Your task to perform on an android device: Go to display settings Image 0: 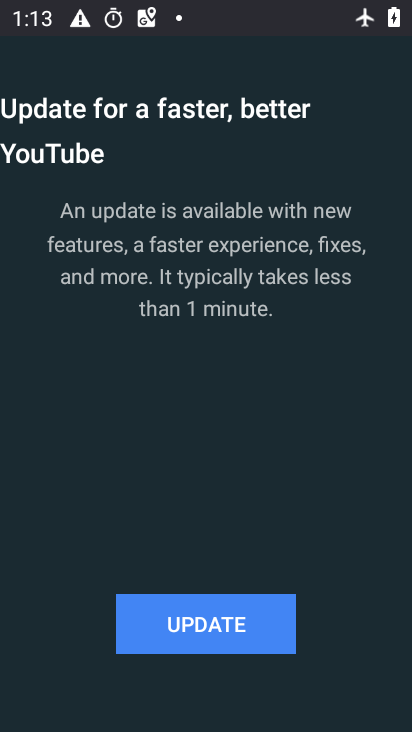
Step 0: press home button
Your task to perform on an android device: Go to display settings Image 1: 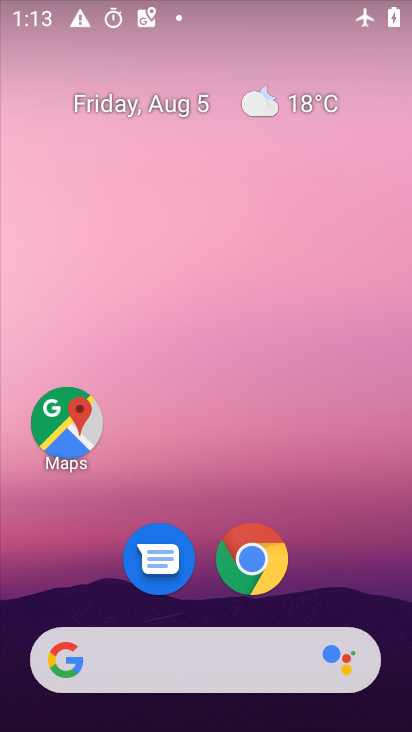
Step 1: drag from (72, 706) to (256, 165)
Your task to perform on an android device: Go to display settings Image 2: 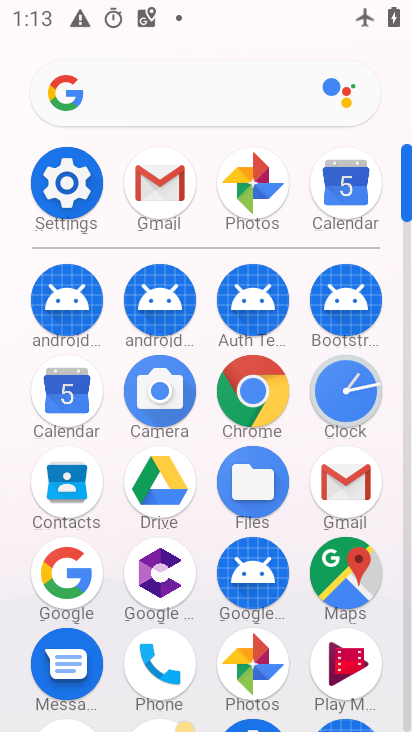
Step 2: click (53, 201)
Your task to perform on an android device: Go to display settings Image 3: 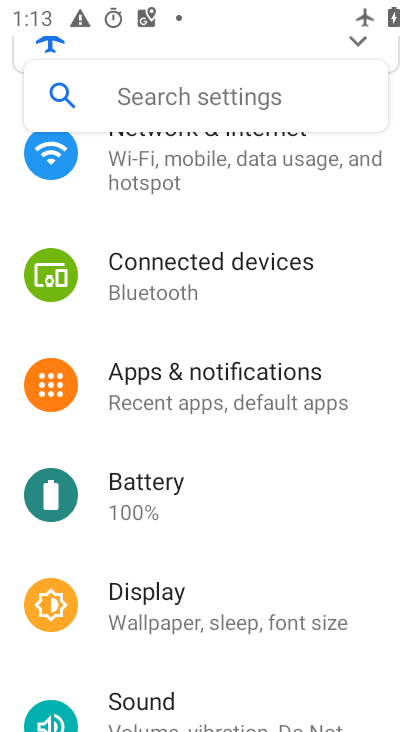
Step 3: click (220, 594)
Your task to perform on an android device: Go to display settings Image 4: 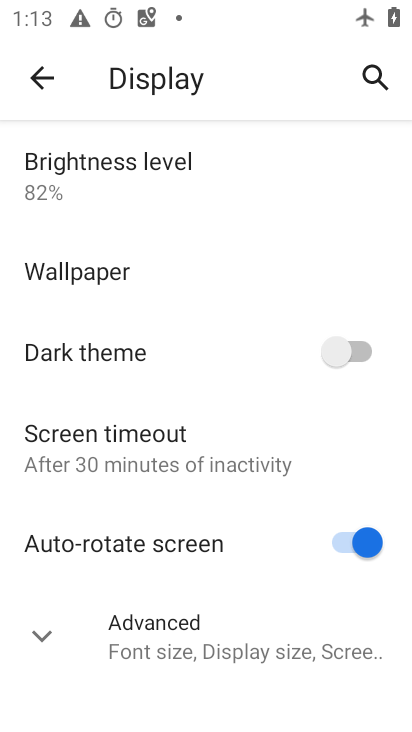
Step 4: task complete